Your task to perform on an android device: delete location history Image 0: 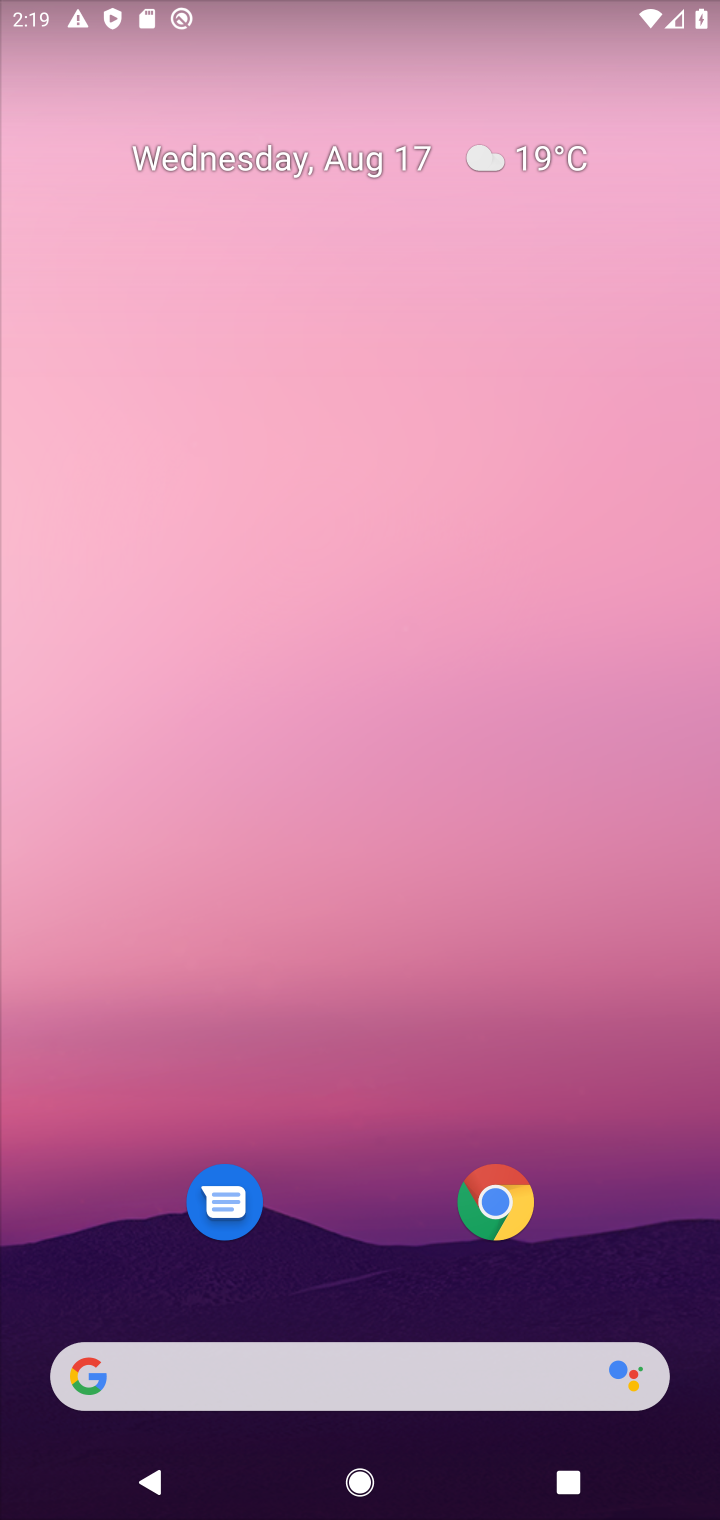
Step 0: drag from (363, 1285) to (261, 28)
Your task to perform on an android device: delete location history Image 1: 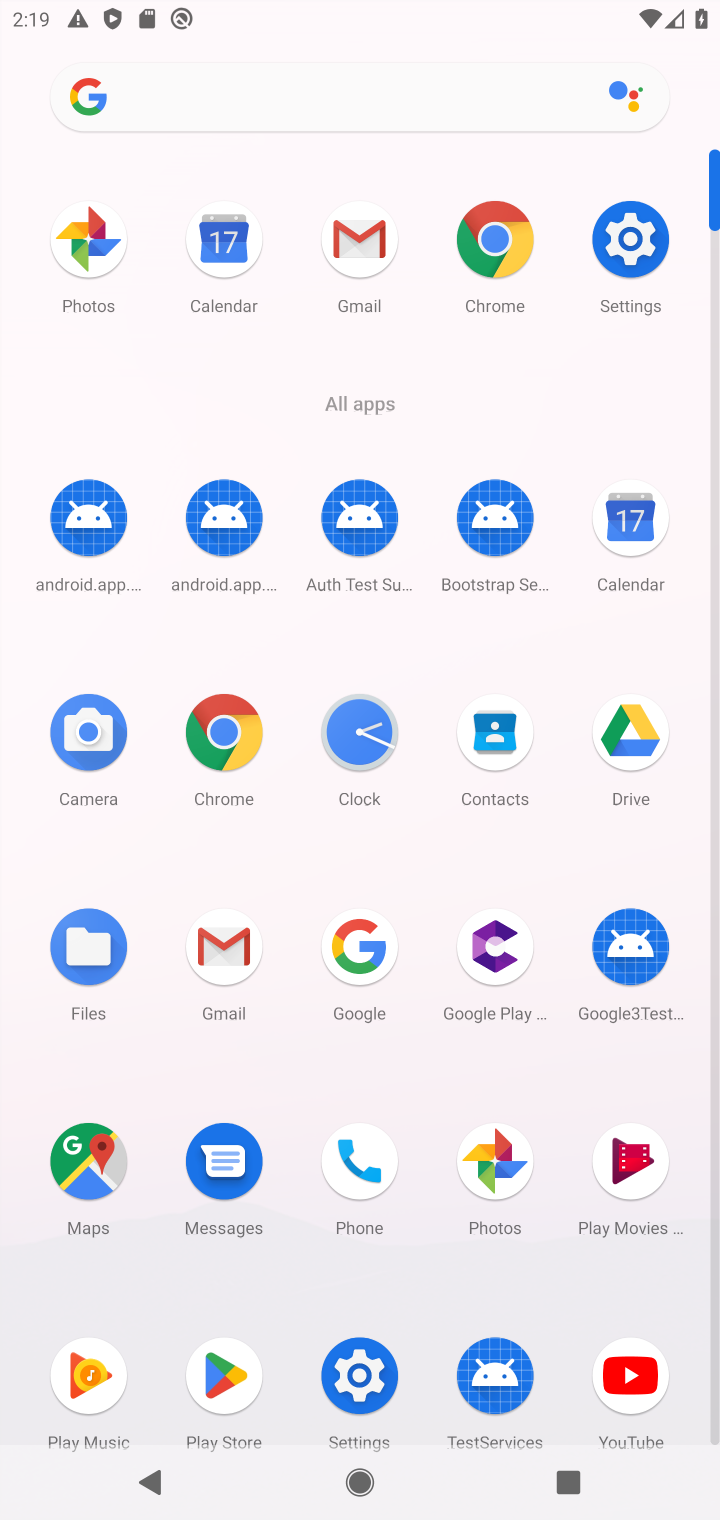
Step 1: click (92, 1123)
Your task to perform on an android device: delete location history Image 2: 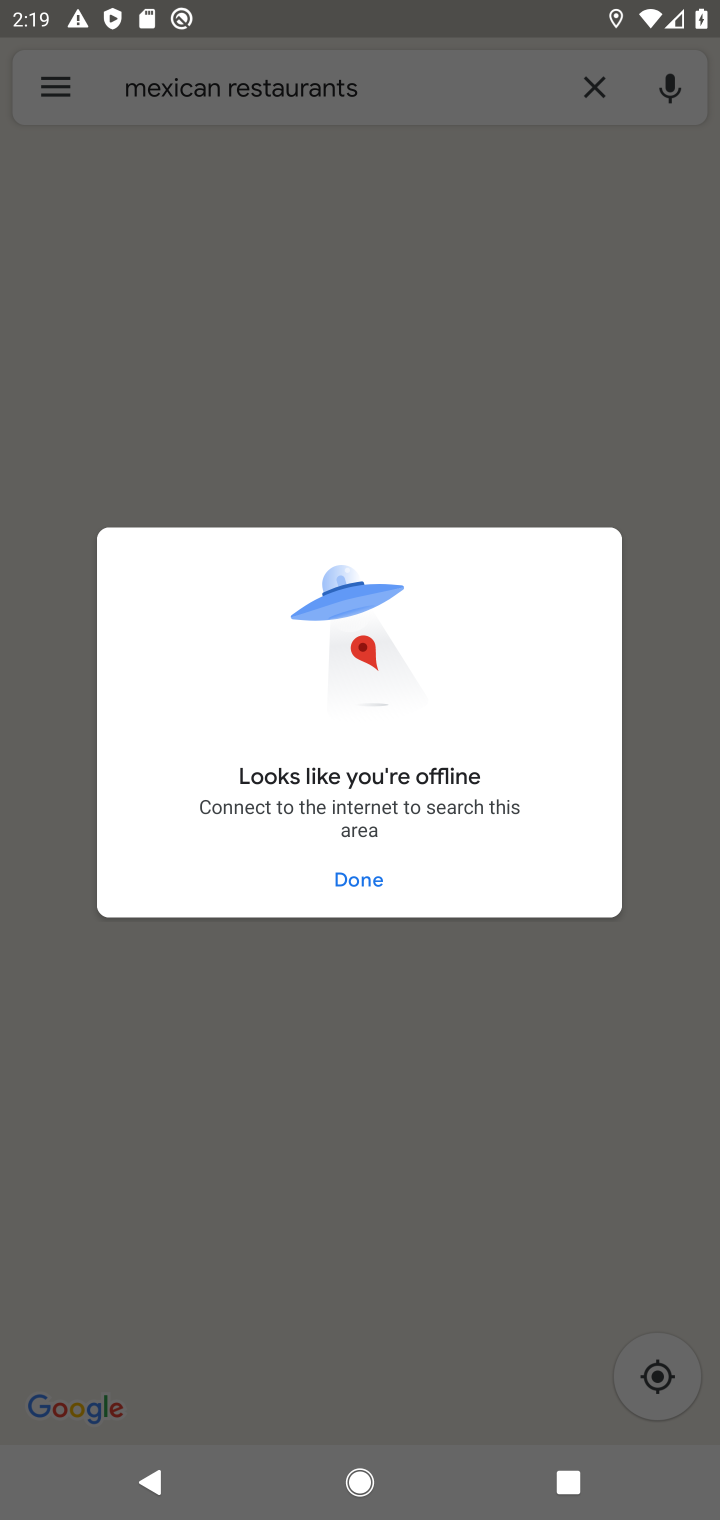
Step 2: click (377, 867)
Your task to perform on an android device: delete location history Image 3: 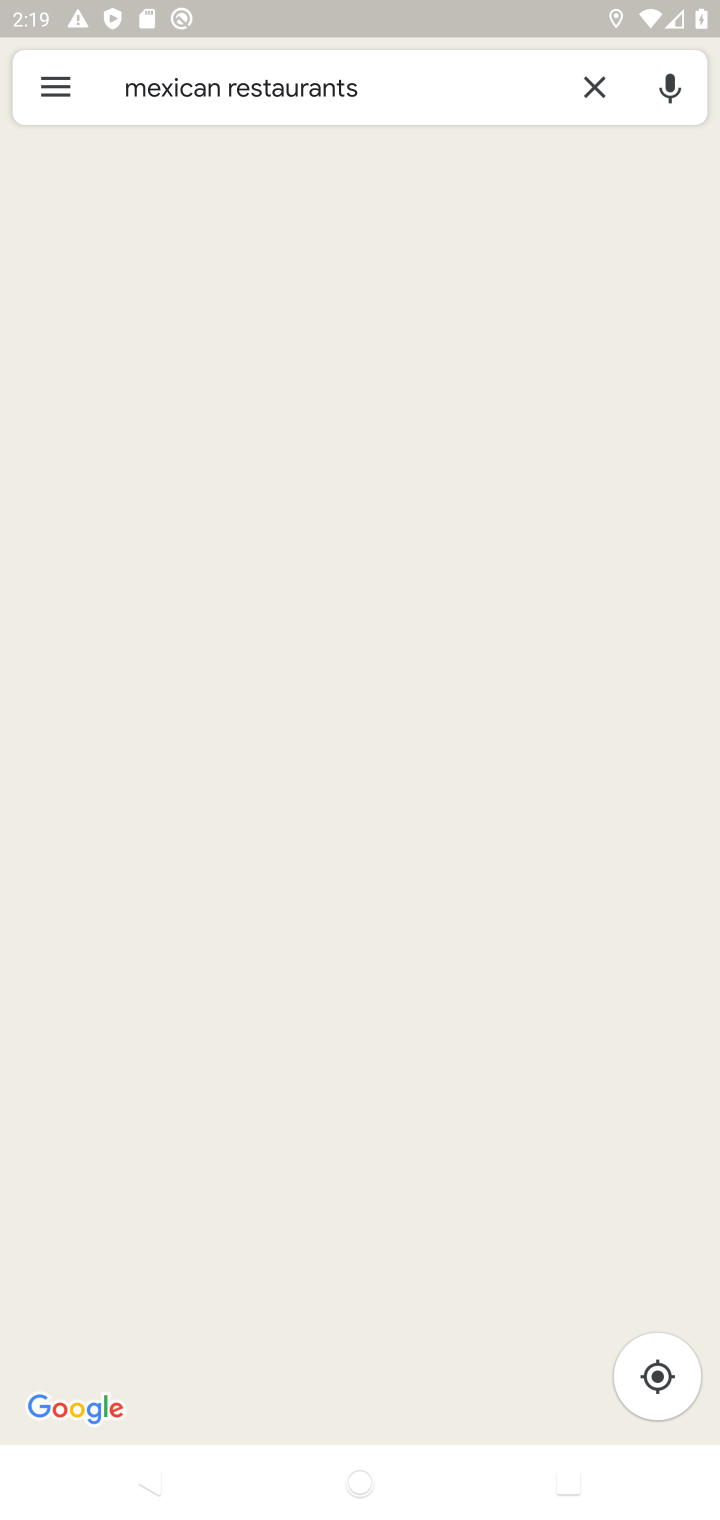
Step 3: click (51, 85)
Your task to perform on an android device: delete location history Image 4: 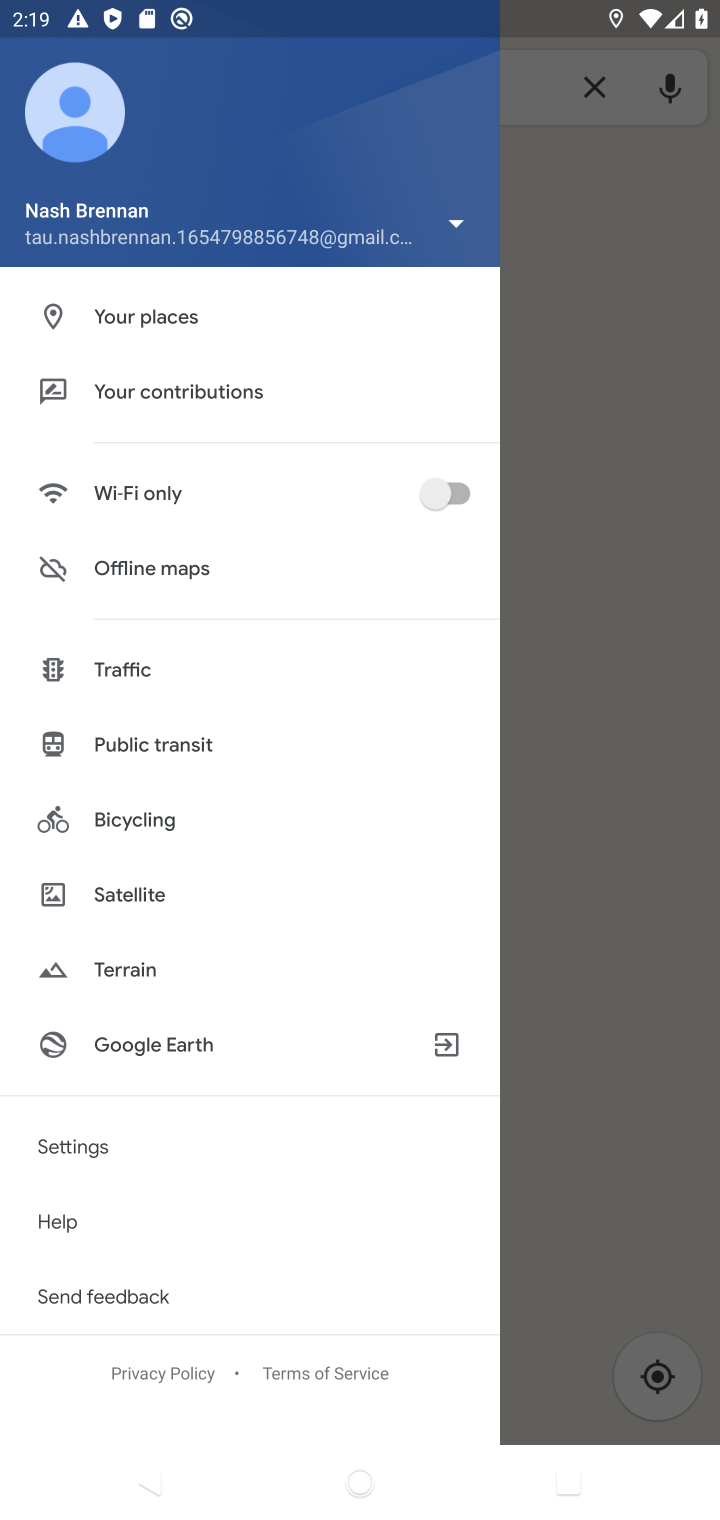
Step 4: click (222, 385)
Your task to perform on an android device: delete location history Image 5: 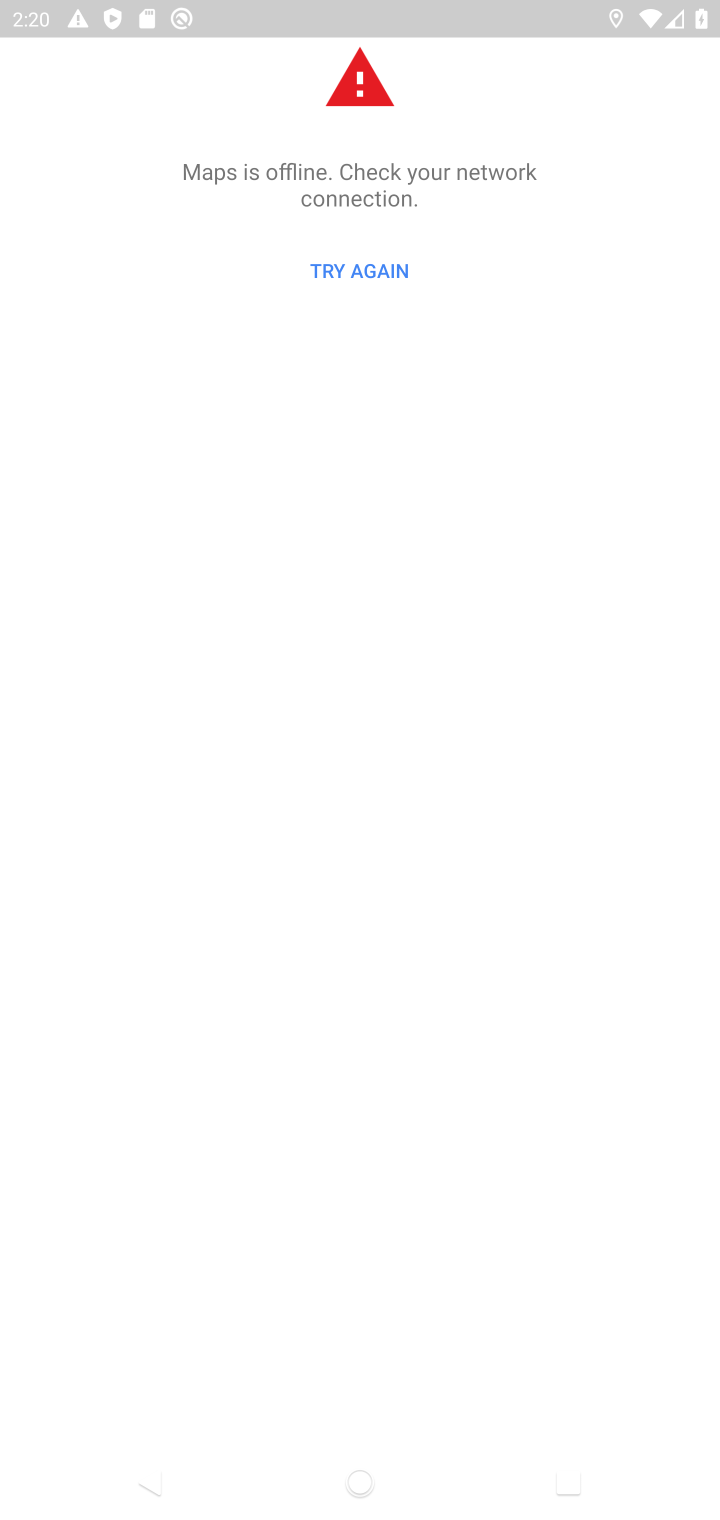
Step 5: click (355, 257)
Your task to perform on an android device: delete location history Image 6: 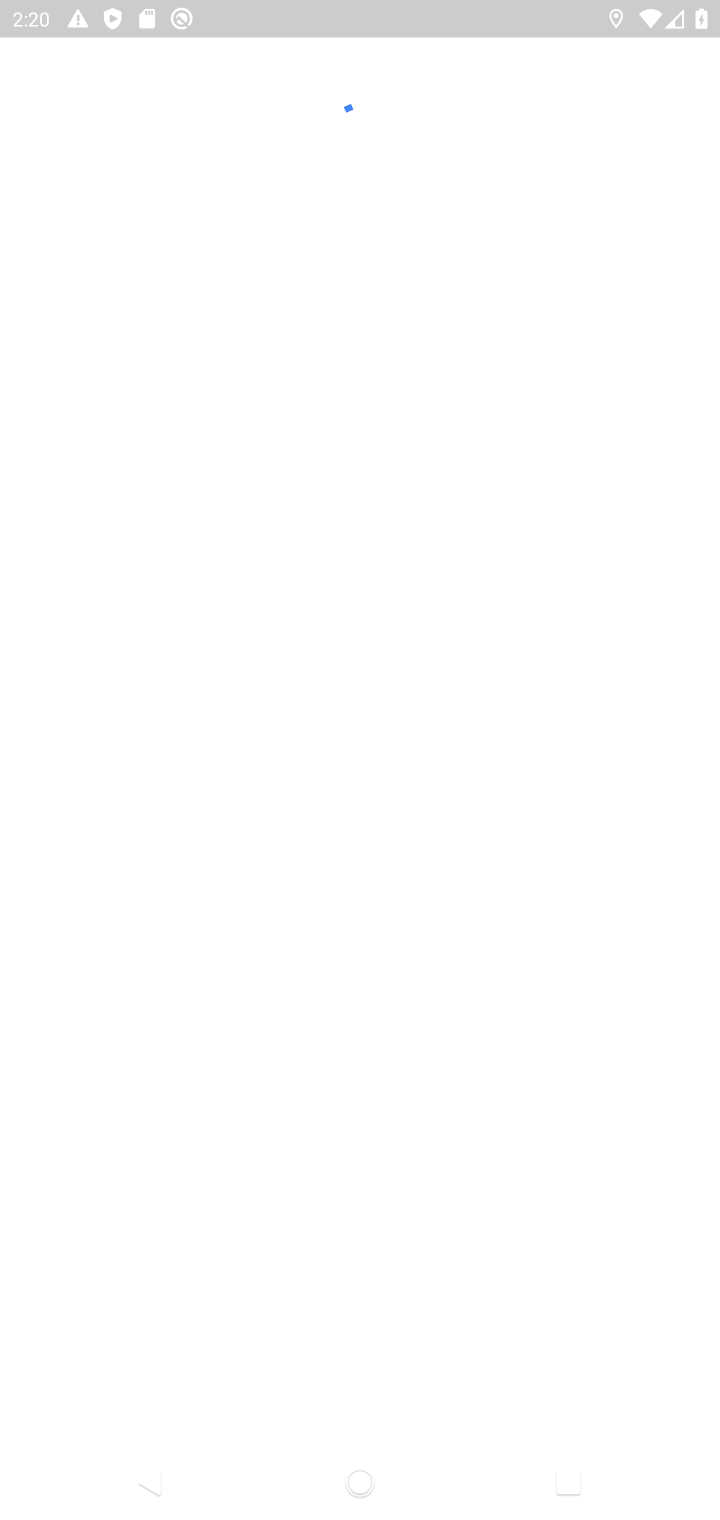
Step 6: task complete